Your task to perform on an android device: turn on javascript in the chrome app Image 0: 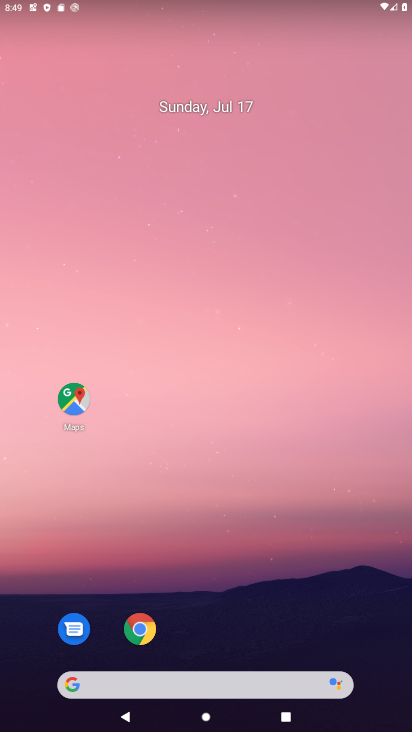
Step 0: drag from (243, 661) to (250, 111)
Your task to perform on an android device: turn on javascript in the chrome app Image 1: 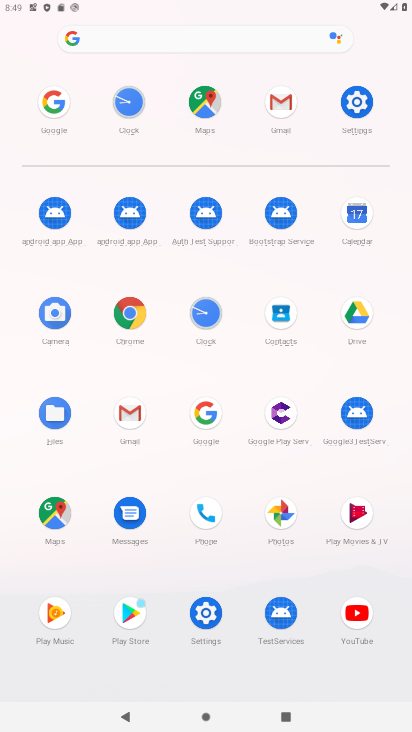
Step 1: click (133, 311)
Your task to perform on an android device: turn on javascript in the chrome app Image 2: 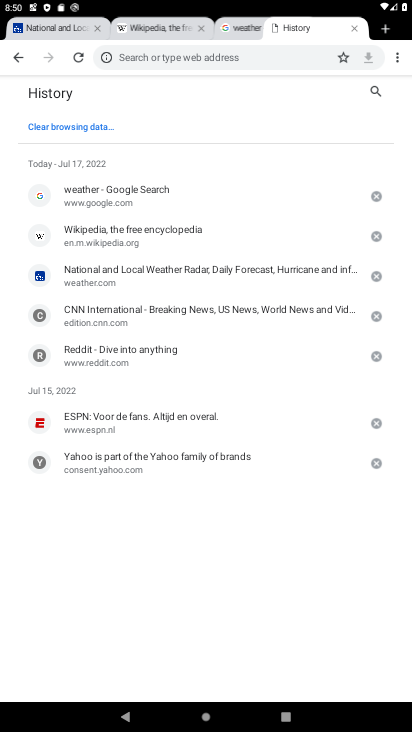
Step 2: click (397, 65)
Your task to perform on an android device: turn on javascript in the chrome app Image 3: 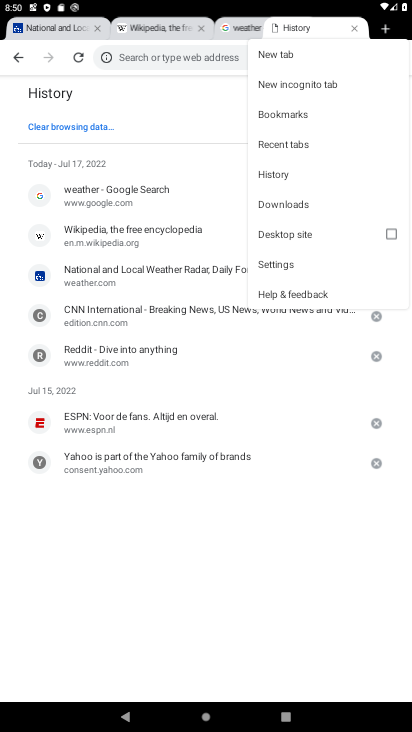
Step 3: click (275, 262)
Your task to perform on an android device: turn on javascript in the chrome app Image 4: 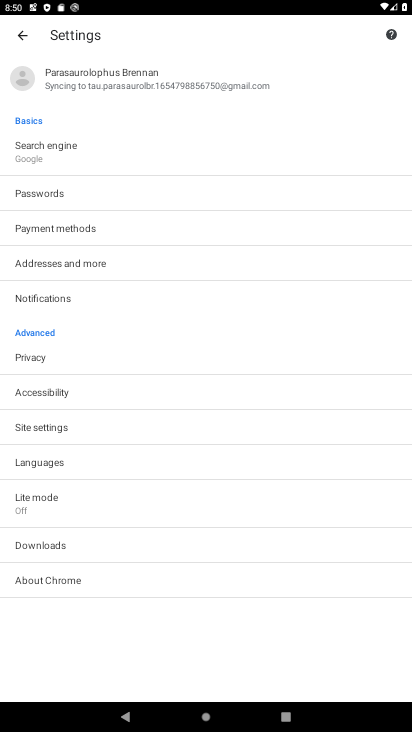
Step 4: click (47, 419)
Your task to perform on an android device: turn on javascript in the chrome app Image 5: 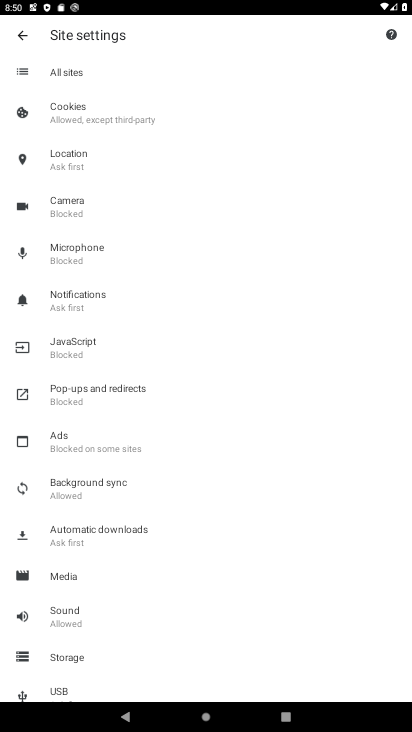
Step 5: click (73, 338)
Your task to perform on an android device: turn on javascript in the chrome app Image 6: 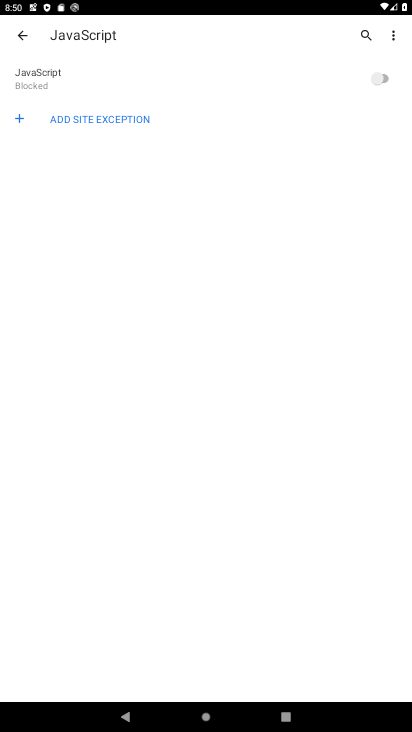
Step 6: click (391, 74)
Your task to perform on an android device: turn on javascript in the chrome app Image 7: 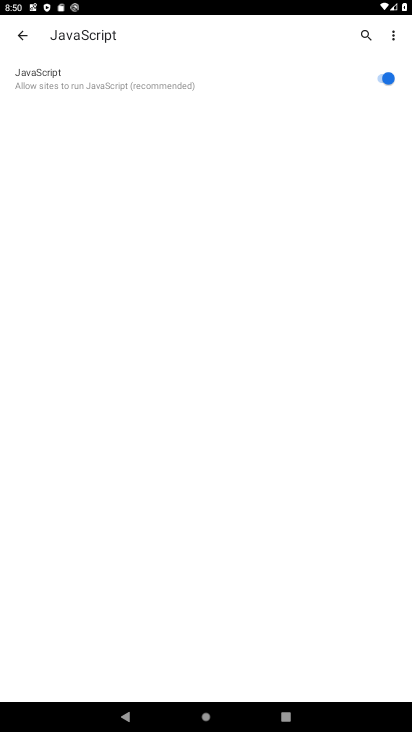
Step 7: task complete